Your task to perform on an android device: all mails in gmail Image 0: 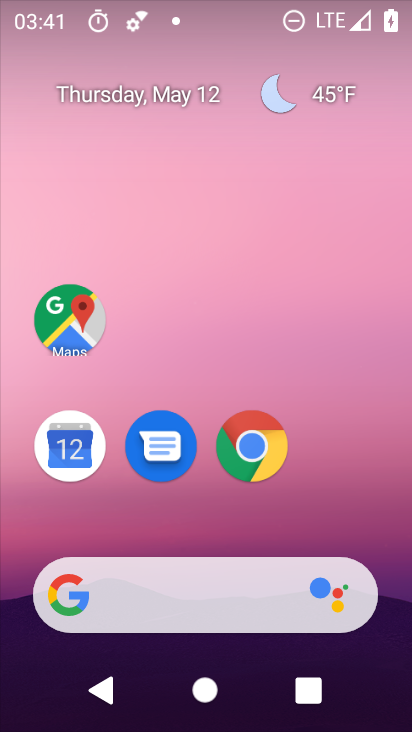
Step 0: drag from (190, 523) to (185, 200)
Your task to perform on an android device: all mails in gmail Image 1: 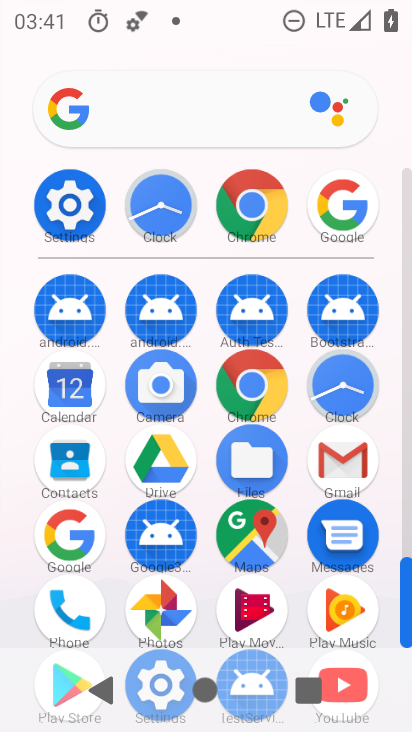
Step 1: click (320, 473)
Your task to perform on an android device: all mails in gmail Image 2: 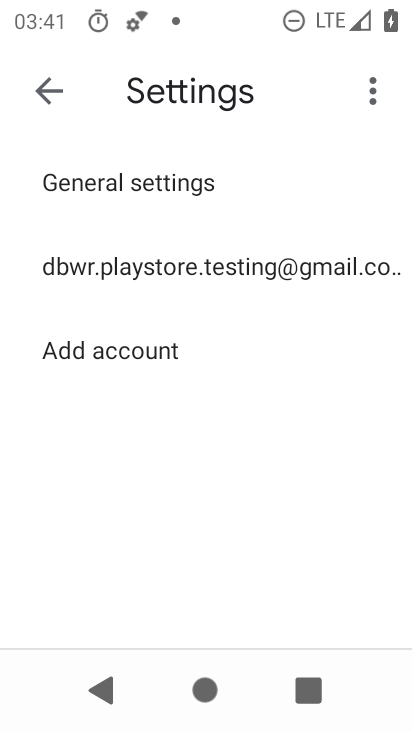
Step 2: click (45, 93)
Your task to perform on an android device: all mails in gmail Image 3: 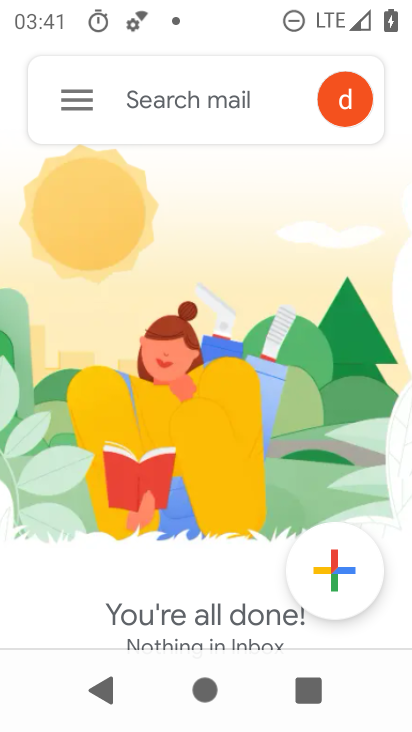
Step 3: click (61, 96)
Your task to perform on an android device: all mails in gmail Image 4: 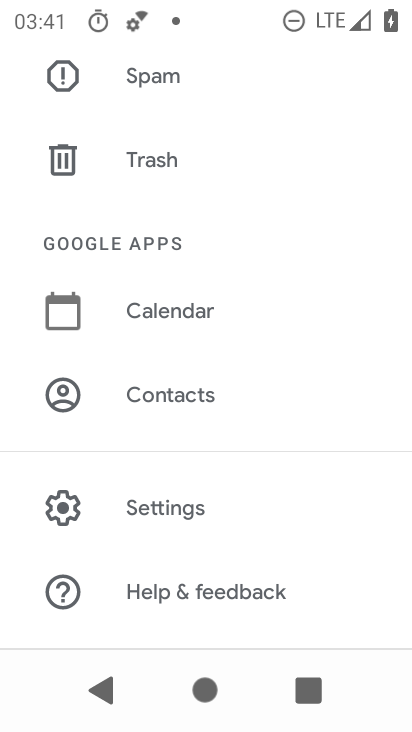
Step 4: drag from (257, 171) to (304, 540)
Your task to perform on an android device: all mails in gmail Image 5: 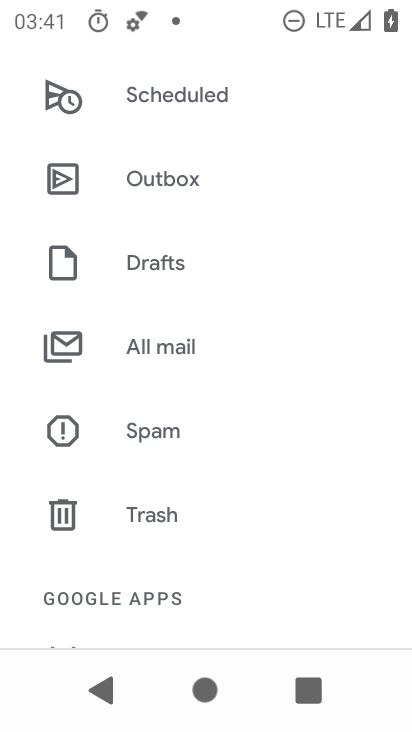
Step 5: click (236, 354)
Your task to perform on an android device: all mails in gmail Image 6: 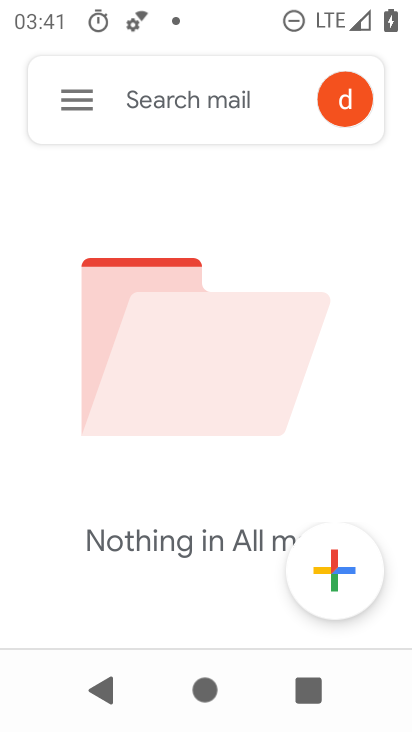
Step 6: task complete